Your task to perform on an android device: set the timer Image 0: 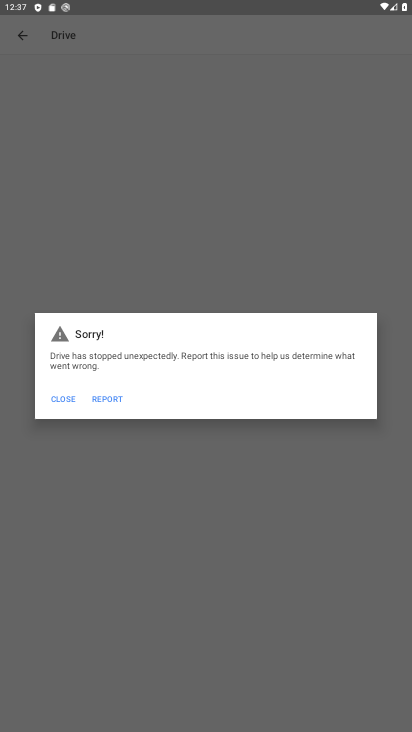
Step 0: press home button
Your task to perform on an android device: set the timer Image 1: 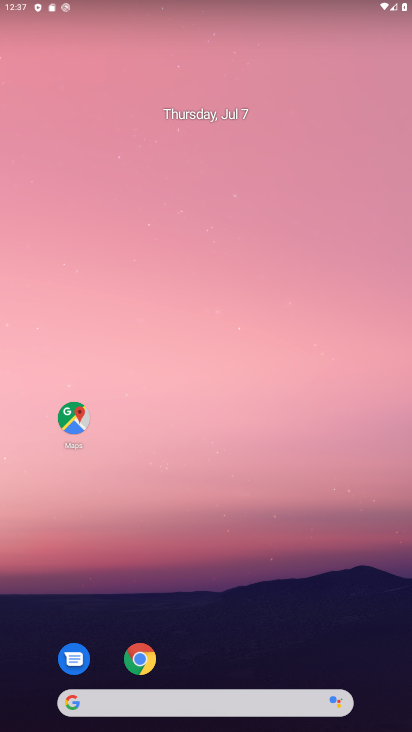
Step 1: drag from (271, 643) to (244, 126)
Your task to perform on an android device: set the timer Image 2: 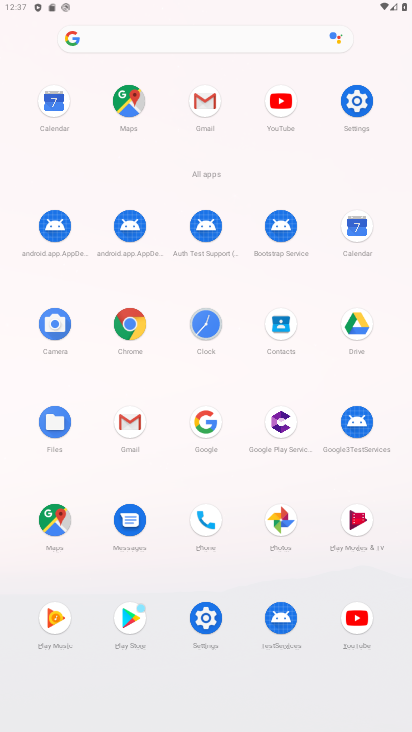
Step 2: click (207, 323)
Your task to perform on an android device: set the timer Image 3: 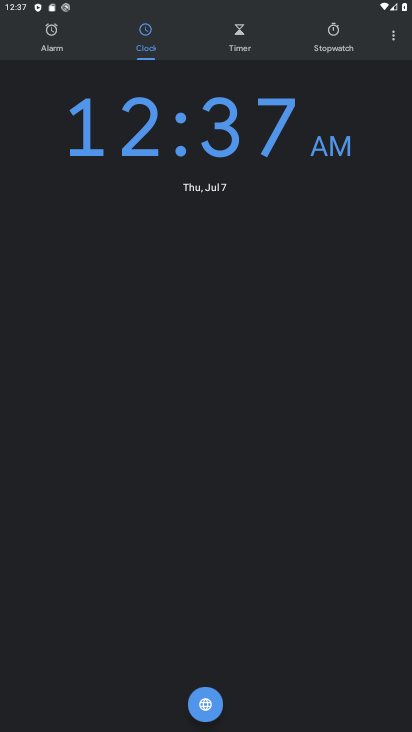
Step 3: click (232, 27)
Your task to perform on an android device: set the timer Image 4: 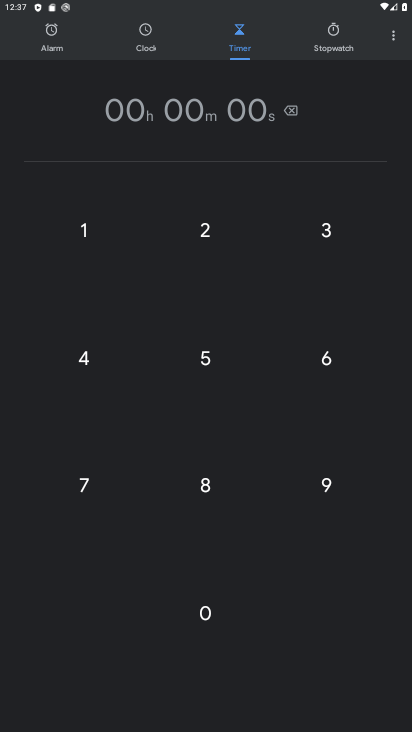
Step 4: click (84, 229)
Your task to perform on an android device: set the timer Image 5: 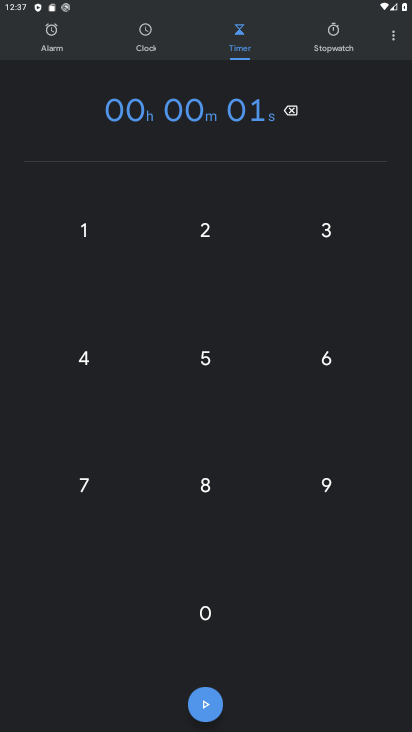
Step 5: click (84, 229)
Your task to perform on an android device: set the timer Image 6: 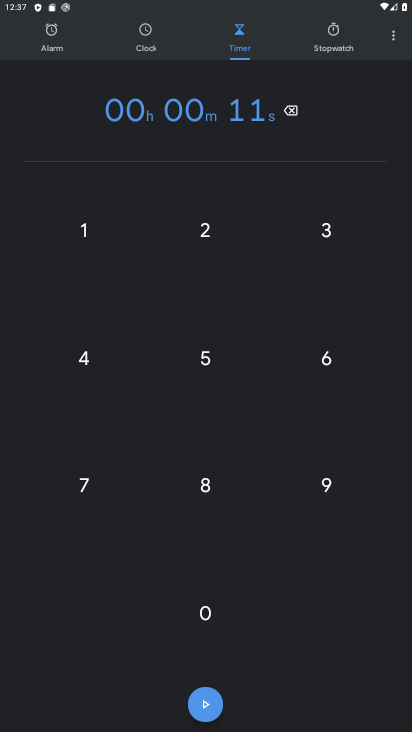
Step 6: click (84, 229)
Your task to perform on an android device: set the timer Image 7: 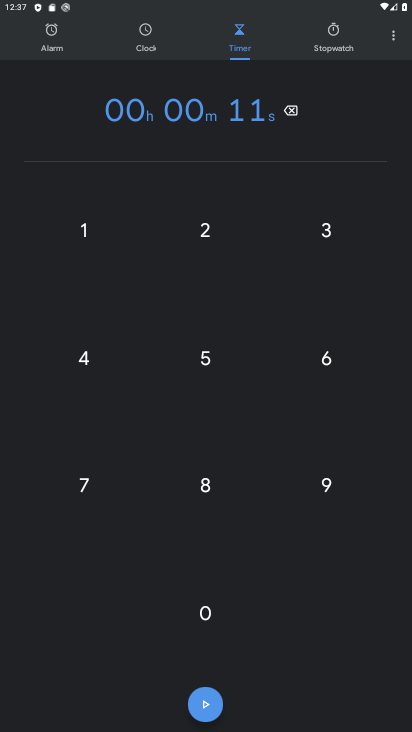
Step 7: click (84, 229)
Your task to perform on an android device: set the timer Image 8: 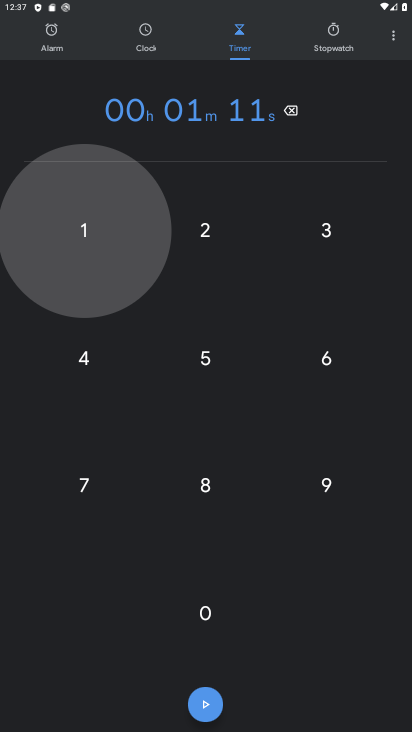
Step 8: click (84, 229)
Your task to perform on an android device: set the timer Image 9: 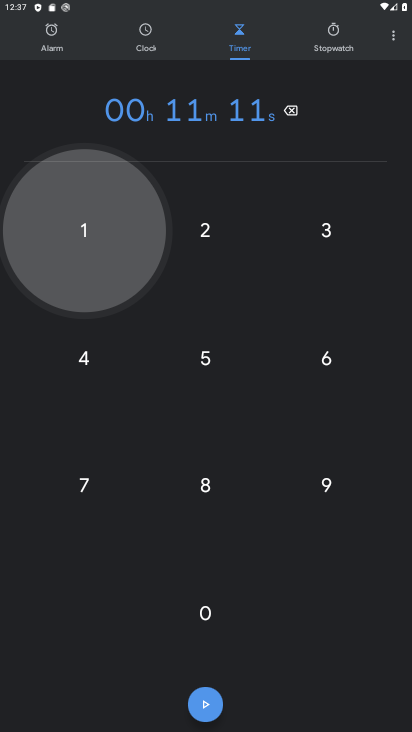
Step 9: click (84, 229)
Your task to perform on an android device: set the timer Image 10: 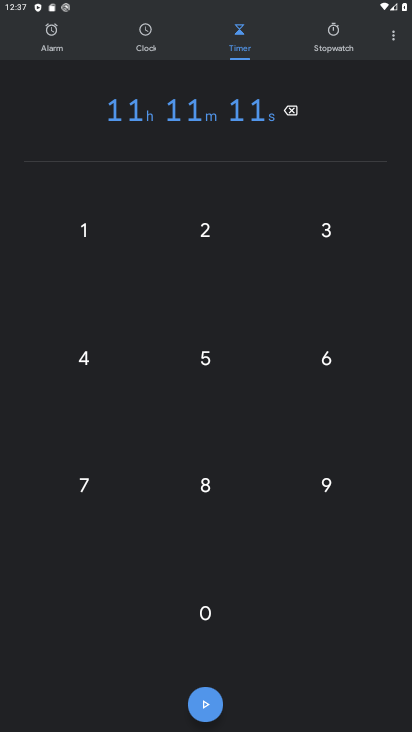
Step 10: task complete